Your task to perform on an android device: Check the settings for the Facebook app Image 0: 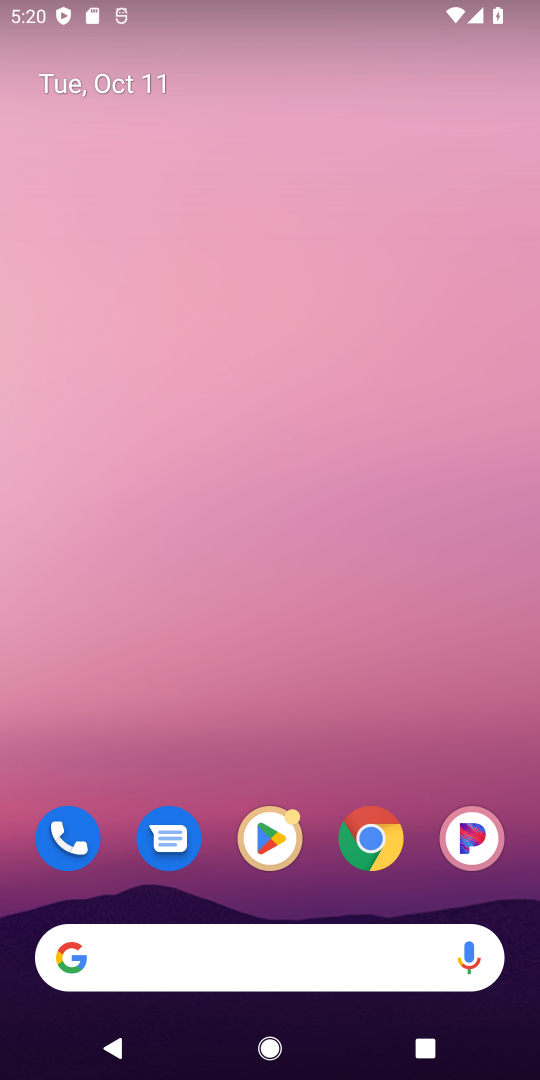
Step 0: click (276, 837)
Your task to perform on an android device: Check the settings for the Facebook app Image 1: 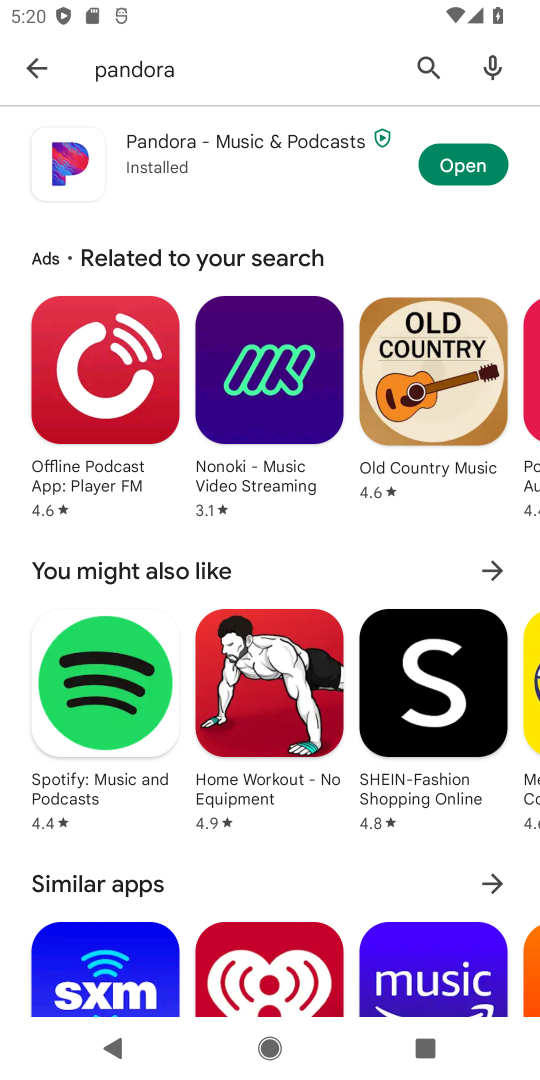
Step 1: click (429, 63)
Your task to perform on an android device: Check the settings for the Facebook app Image 2: 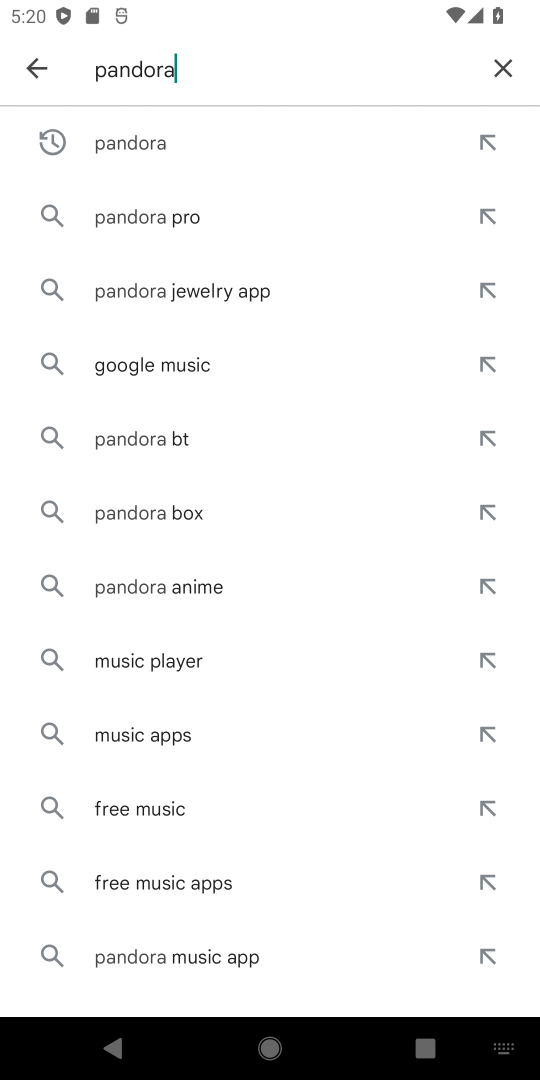
Step 2: click (504, 70)
Your task to perform on an android device: Check the settings for the Facebook app Image 3: 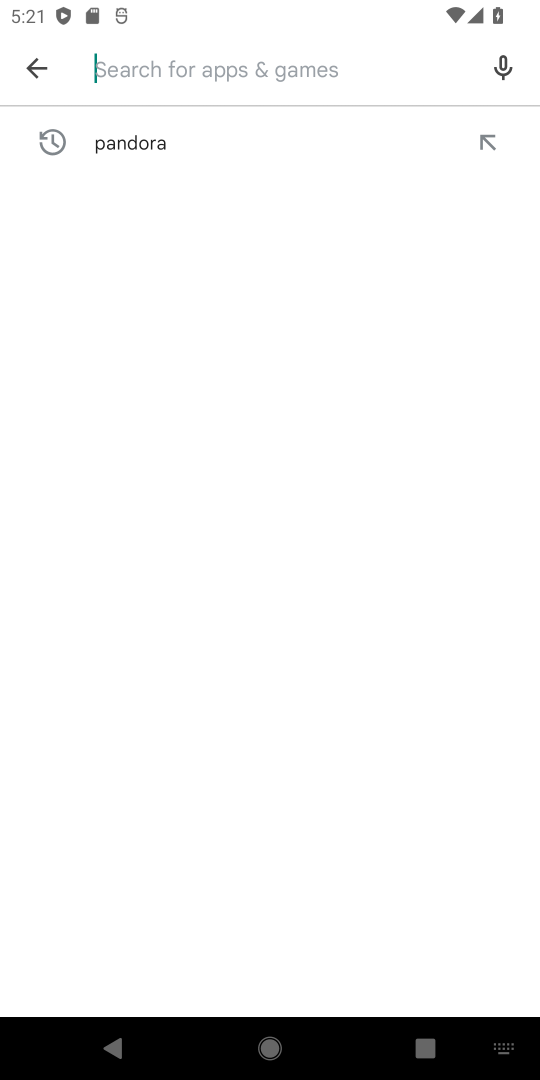
Step 3: type "facebook"
Your task to perform on an android device: Check the settings for the Facebook app Image 4: 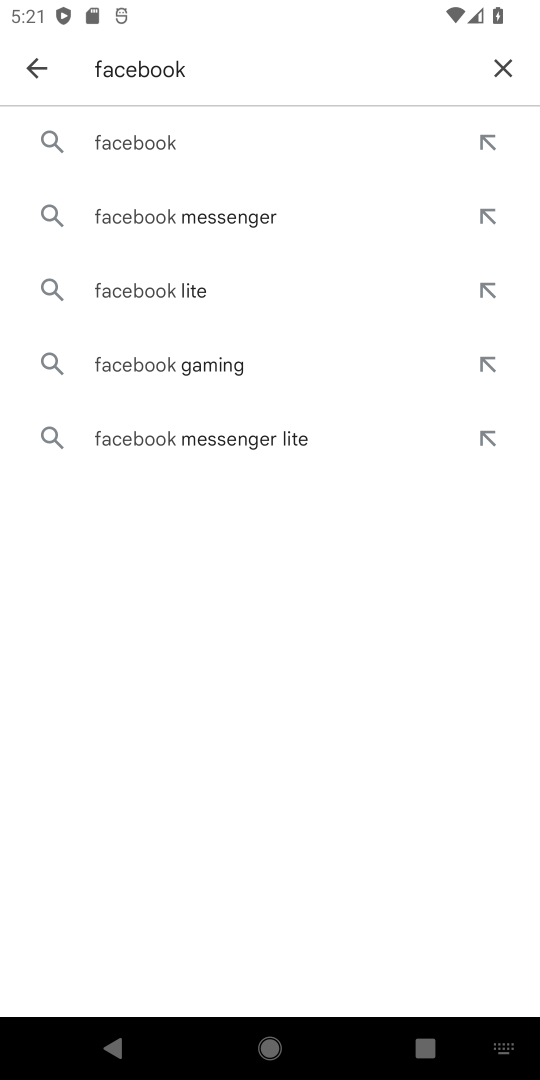
Step 4: click (149, 141)
Your task to perform on an android device: Check the settings for the Facebook app Image 5: 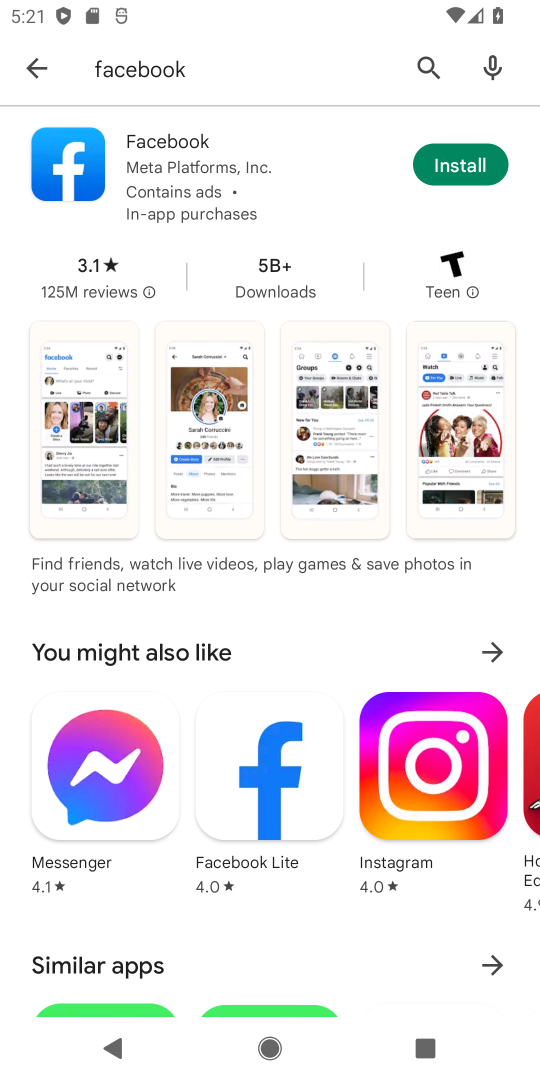
Step 5: click (462, 165)
Your task to perform on an android device: Check the settings for the Facebook app Image 6: 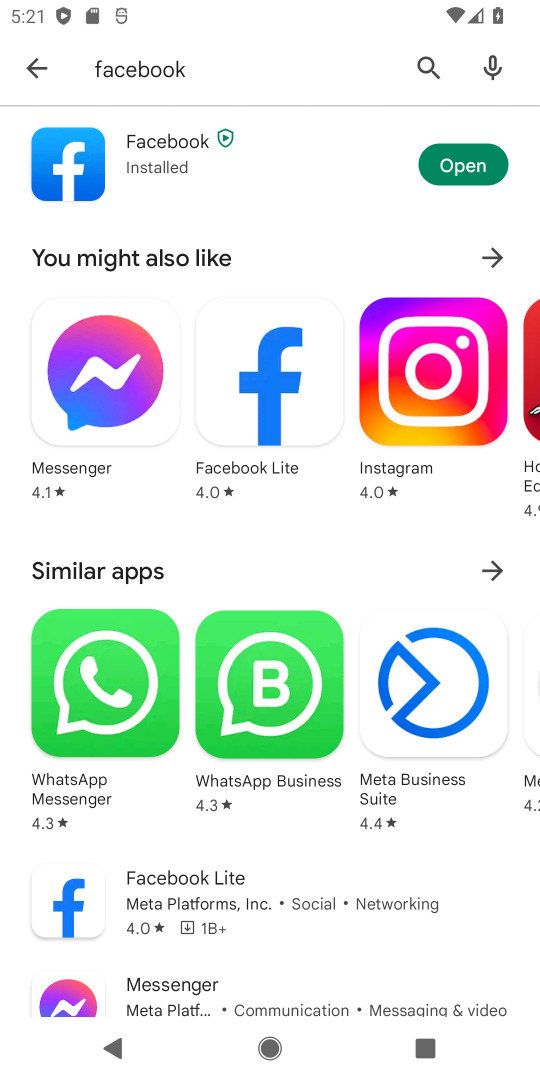
Step 6: click (461, 165)
Your task to perform on an android device: Check the settings for the Facebook app Image 7: 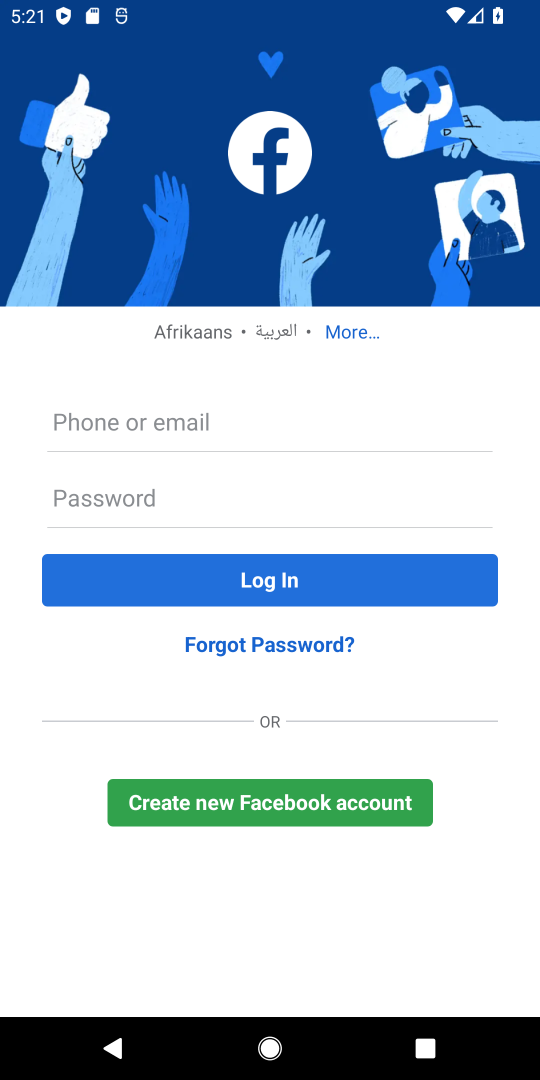
Step 7: task complete